Your task to perform on an android device: turn off airplane mode Image 0: 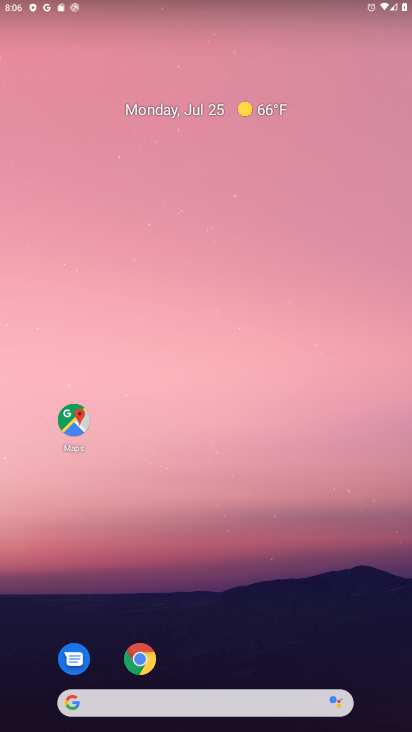
Step 0: drag from (204, 674) to (180, 206)
Your task to perform on an android device: turn off airplane mode Image 1: 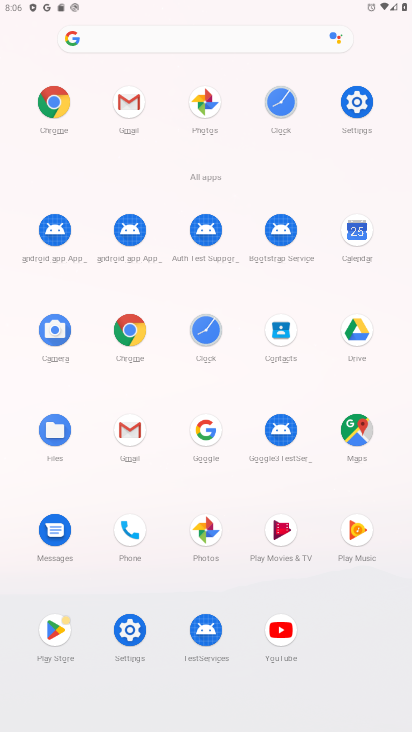
Step 1: click (351, 115)
Your task to perform on an android device: turn off airplane mode Image 2: 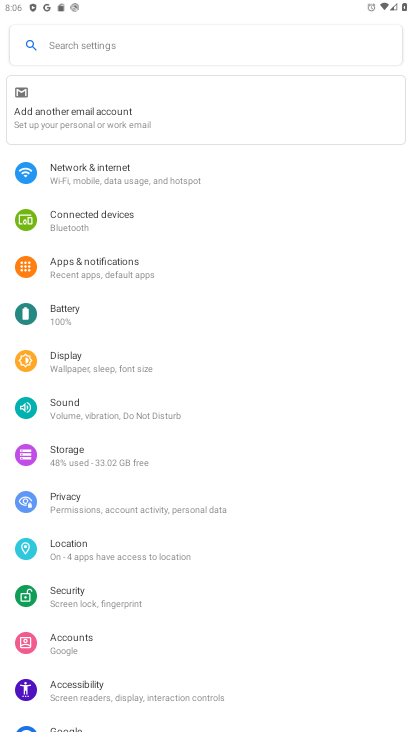
Step 2: click (100, 166)
Your task to perform on an android device: turn off airplane mode Image 3: 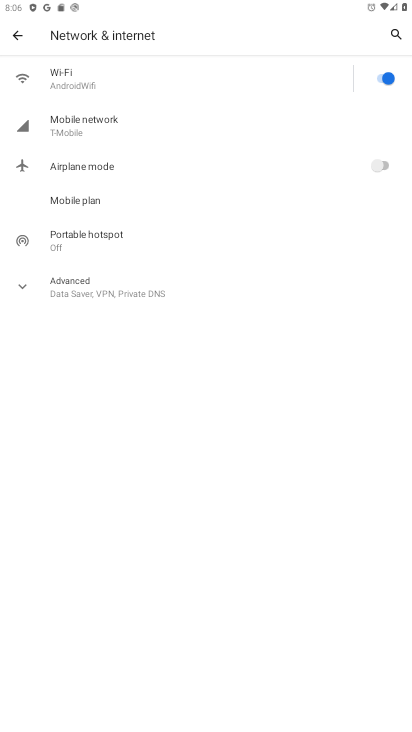
Step 3: task complete